Your task to perform on an android device: Open location settings Image 0: 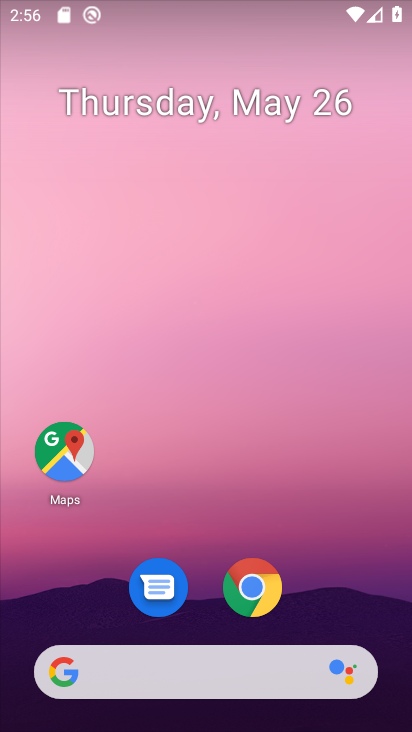
Step 0: drag from (264, 690) to (220, 187)
Your task to perform on an android device: Open location settings Image 1: 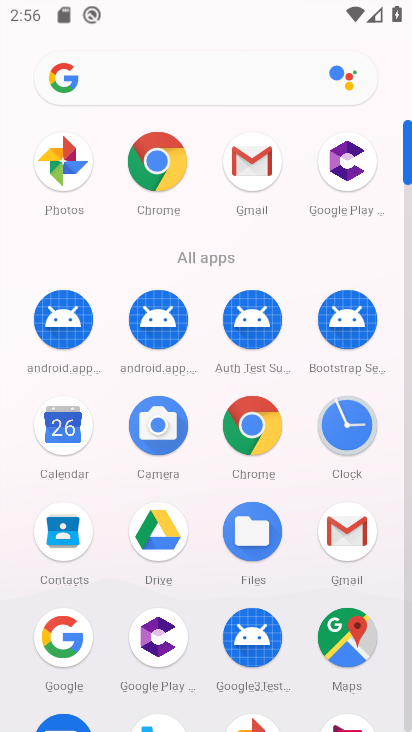
Step 1: drag from (287, 505) to (307, 234)
Your task to perform on an android device: Open location settings Image 2: 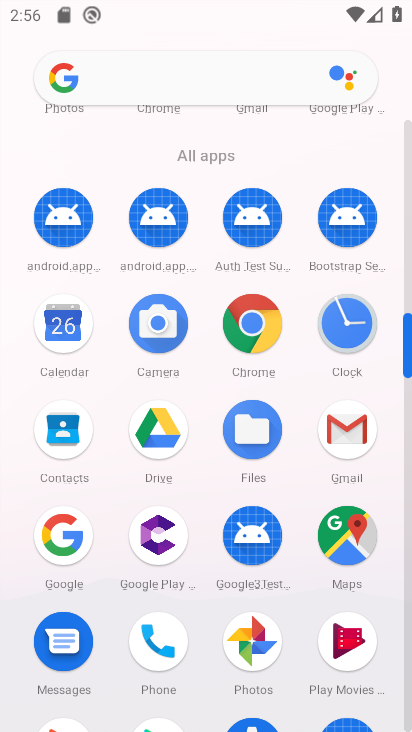
Step 2: drag from (335, 582) to (313, 256)
Your task to perform on an android device: Open location settings Image 3: 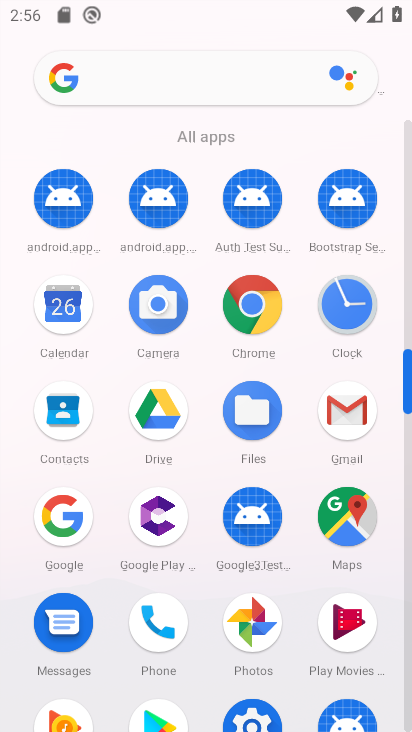
Step 3: drag from (321, 208) to (309, 131)
Your task to perform on an android device: Open location settings Image 4: 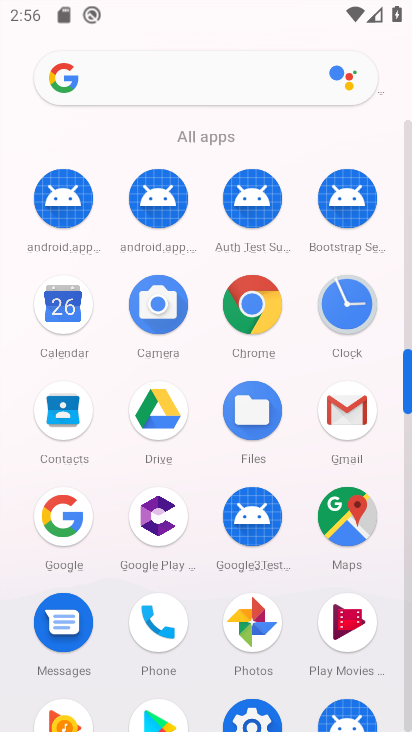
Step 4: drag from (293, 527) to (267, 262)
Your task to perform on an android device: Open location settings Image 5: 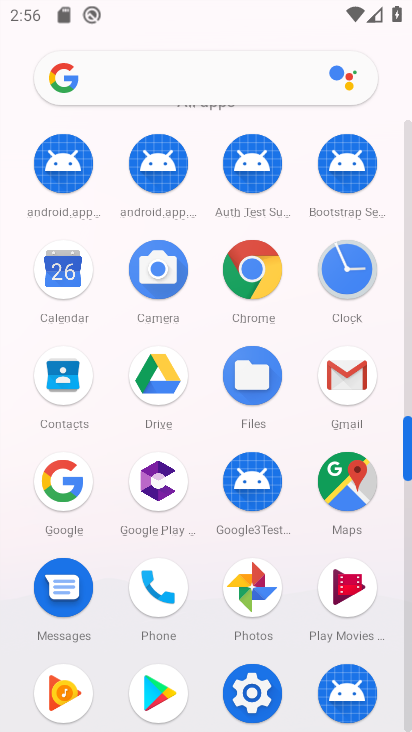
Step 5: drag from (286, 394) to (277, 255)
Your task to perform on an android device: Open location settings Image 6: 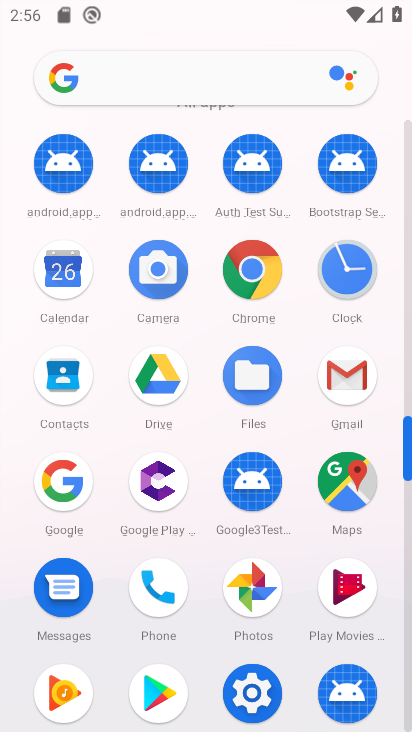
Step 6: drag from (300, 463) to (275, 248)
Your task to perform on an android device: Open location settings Image 7: 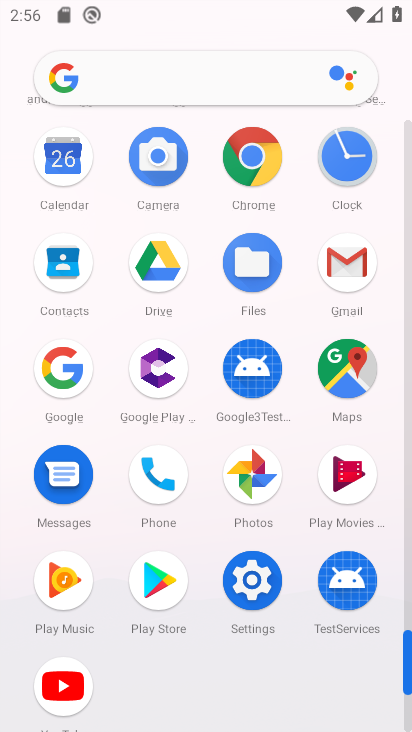
Step 7: drag from (292, 505) to (227, 136)
Your task to perform on an android device: Open location settings Image 8: 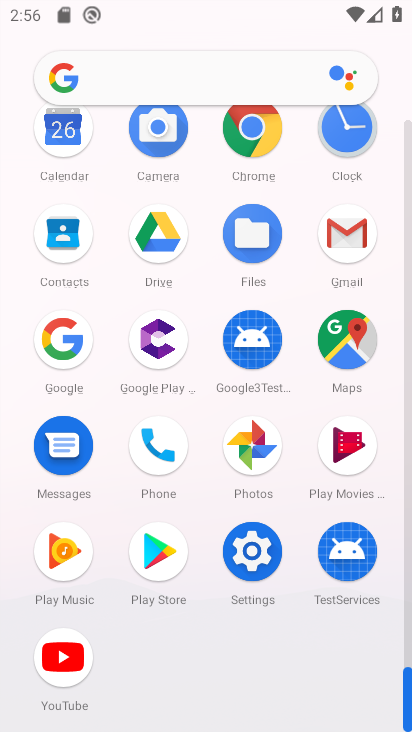
Step 8: drag from (257, 557) to (228, 314)
Your task to perform on an android device: Open location settings Image 9: 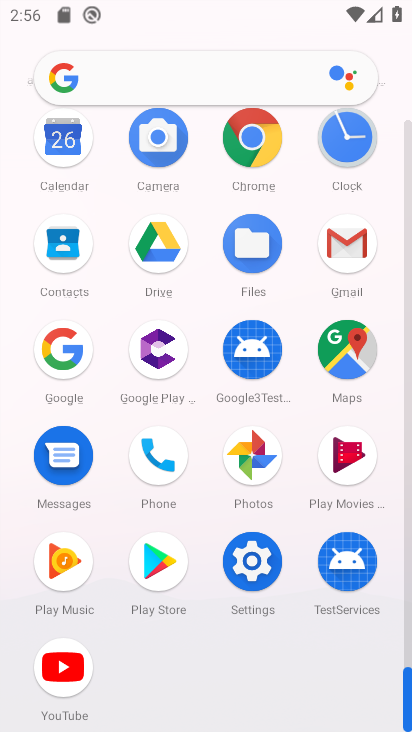
Step 9: click (240, 566)
Your task to perform on an android device: Open location settings Image 10: 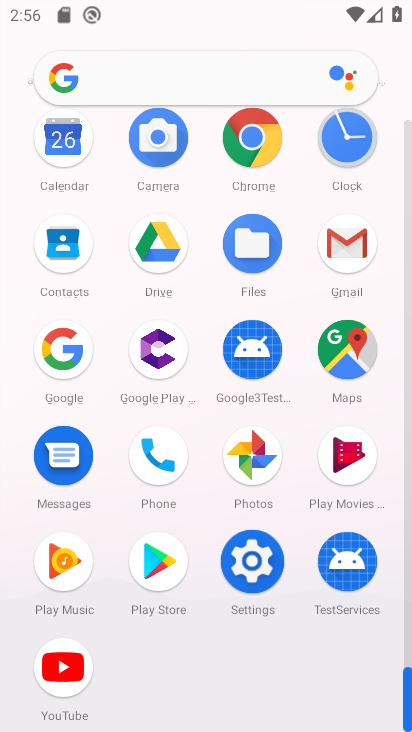
Step 10: click (242, 565)
Your task to perform on an android device: Open location settings Image 11: 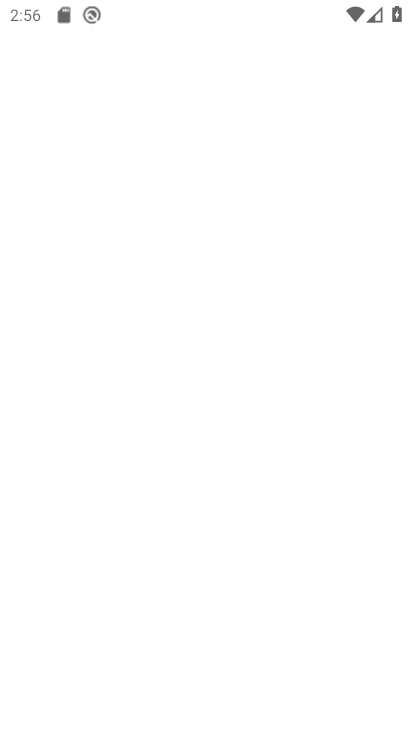
Step 11: click (230, 563)
Your task to perform on an android device: Open location settings Image 12: 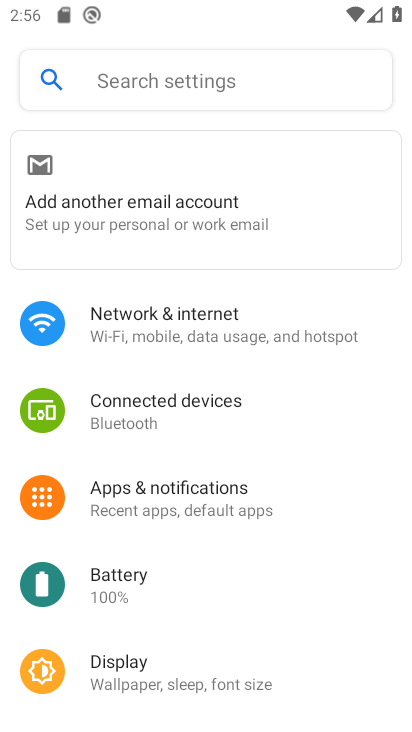
Step 12: drag from (196, 549) to (178, 113)
Your task to perform on an android device: Open location settings Image 13: 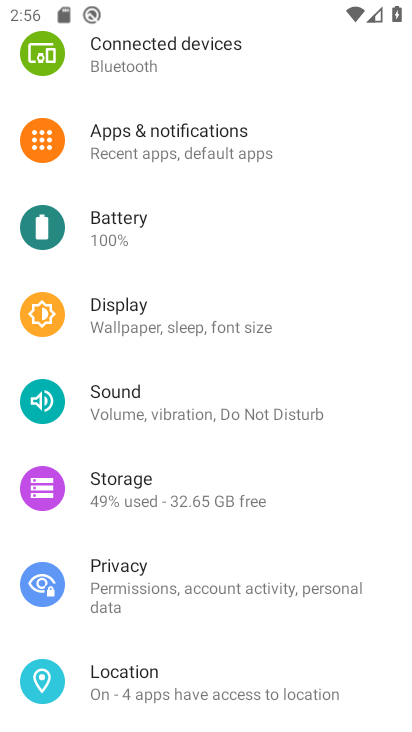
Step 13: click (143, 679)
Your task to perform on an android device: Open location settings Image 14: 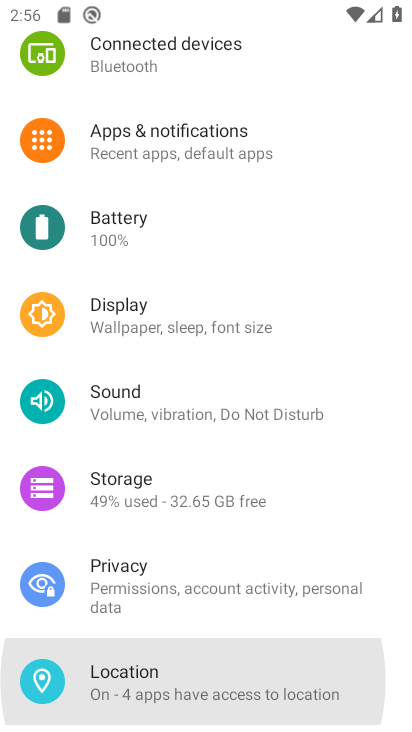
Step 14: click (143, 679)
Your task to perform on an android device: Open location settings Image 15: 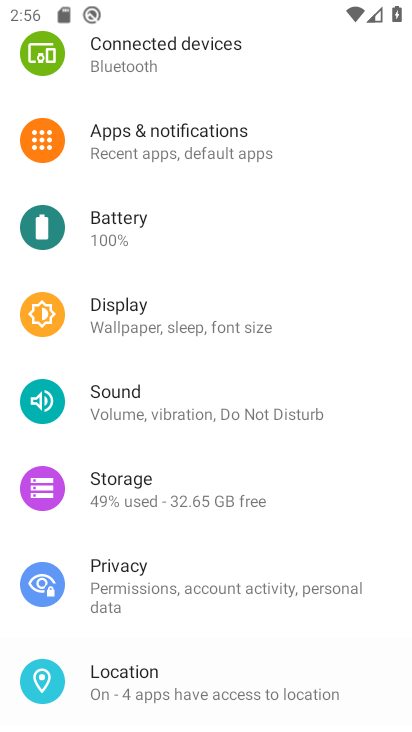
Step 15: click (144, 697)
Your task to perform on an android device: Open location settings Image 16: 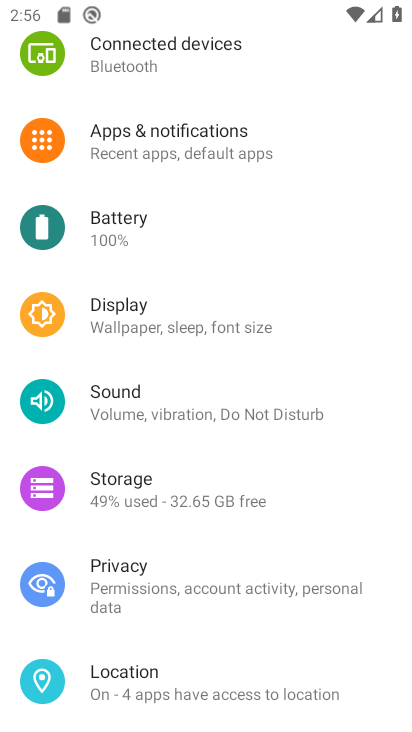
Step 16: click (144, 697)
Your task to perform on an android device: Open location settings Image 17: 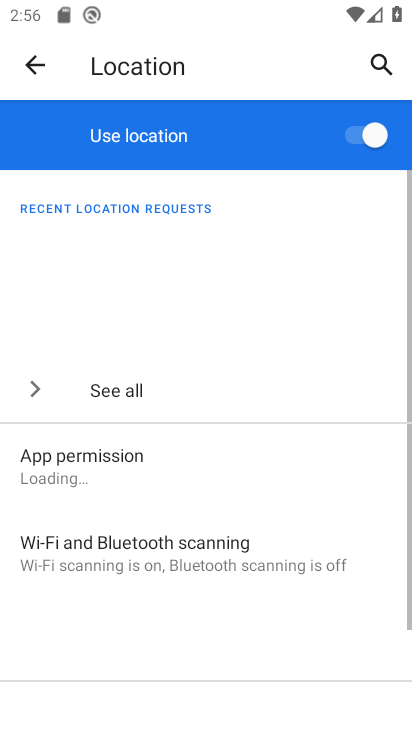
Step 17: click (145, 698)
Your task to perform on an android device: Open location settings Image 18: 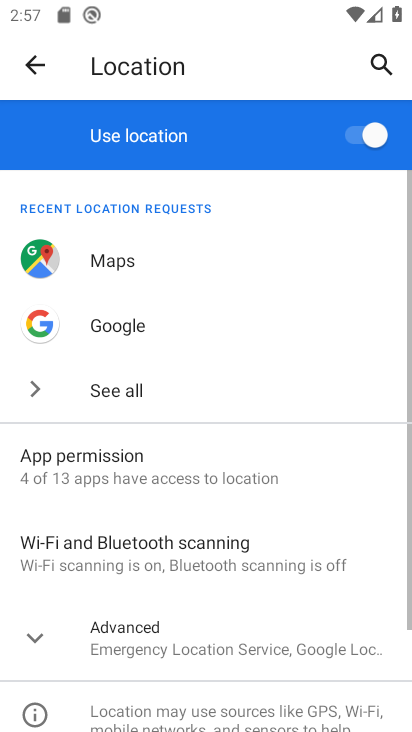
Step 18: task complete